Your task to perform on an android device: Search for seafood restaurants on Google Maps Image 0: 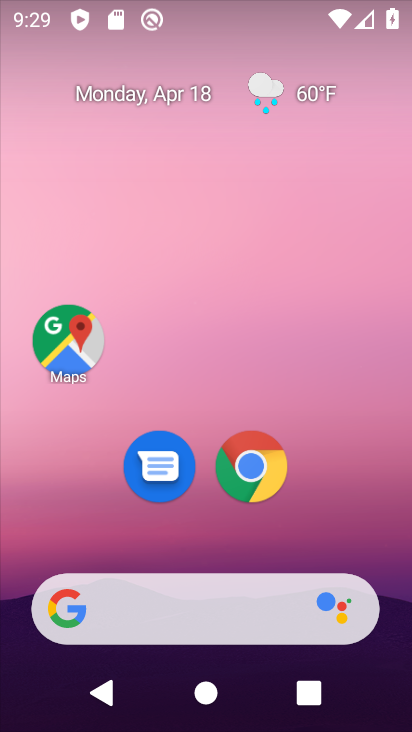
Step 0: drag from (267, 564) to (275, 23)
Your task to perform on an android device: Search for seafood restaurants on Google Maps Image 1: 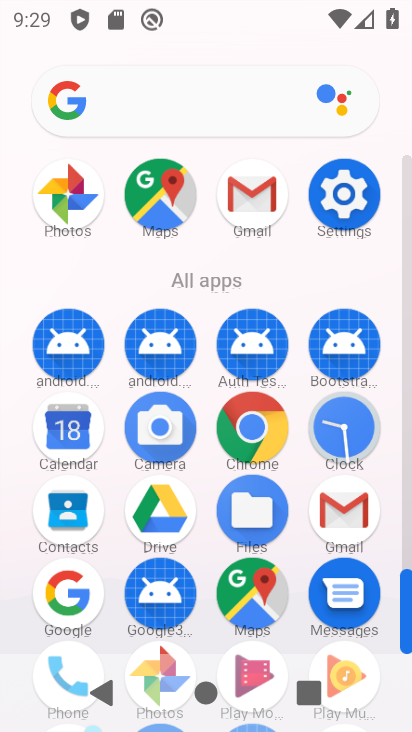
Step 1: click (265, 606)
Your task to perform on an android device: Search for seafood restaurants on Google Maps Image 2: 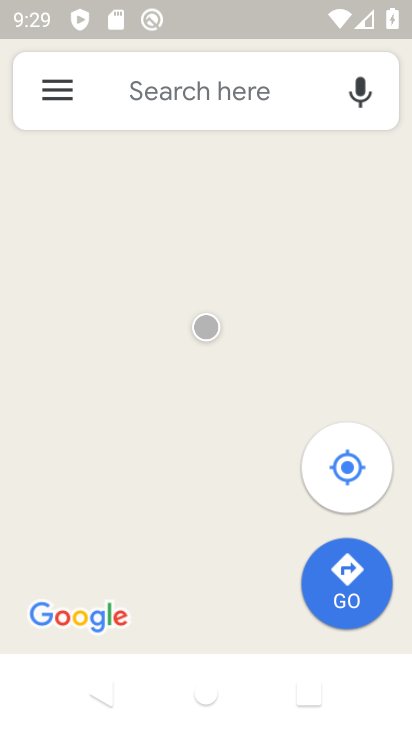
Step 2: click (280, 93)
Your task to perform on an android device: Search for seafood restaurants on Google Maps Image 3: 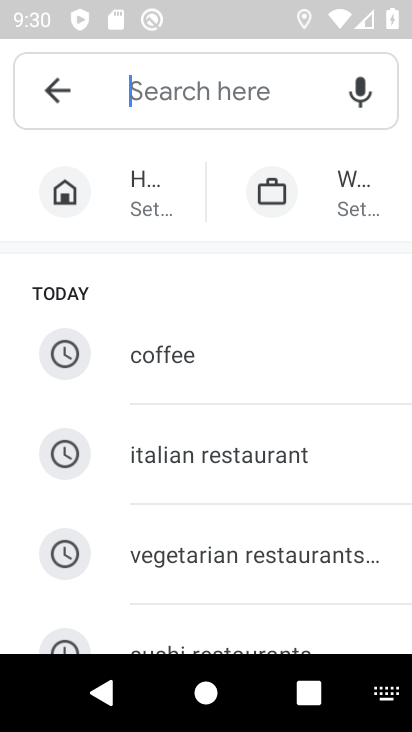
Step 3: type "seafood restaurant"
Your task to perform on an android device: Search for seafood restaurants on Google Maps Image 4: 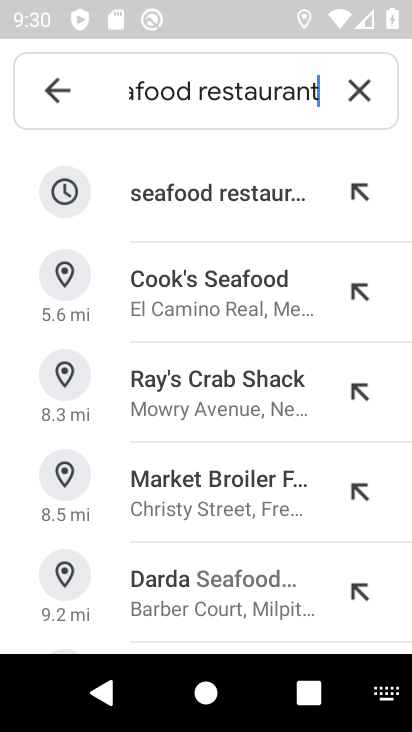
Step 4: click (226, 209)
Your task to perform on an android device: Search for seafood restaurants on Google Maps Image 5: 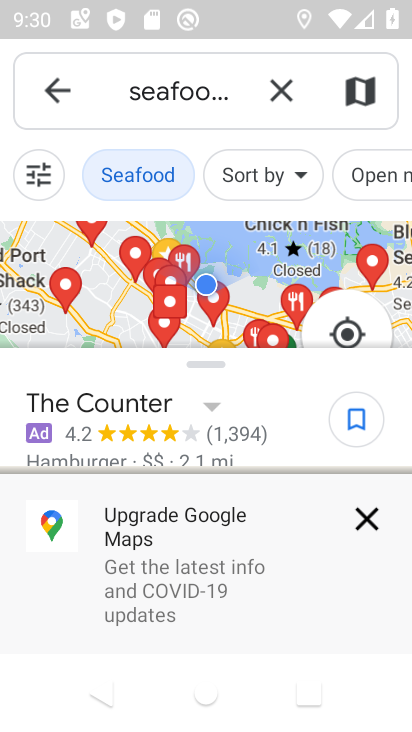
Step 5: task complete